Your task to perform on an android device: Go to eBay Image 0: 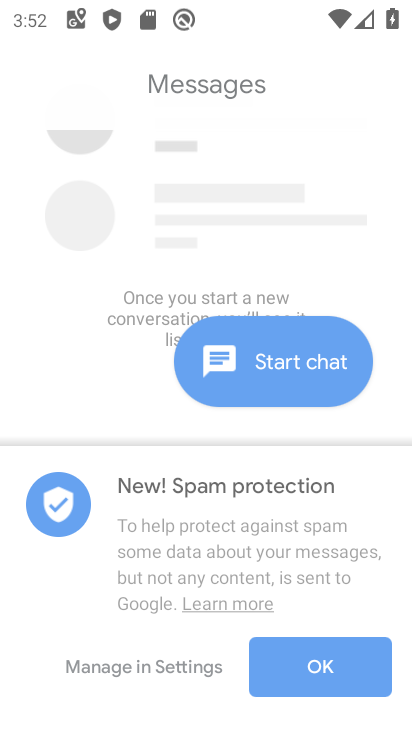
Step 0: click (360, 90)
Your task to perform on an android device: Go to eBay Image 1: 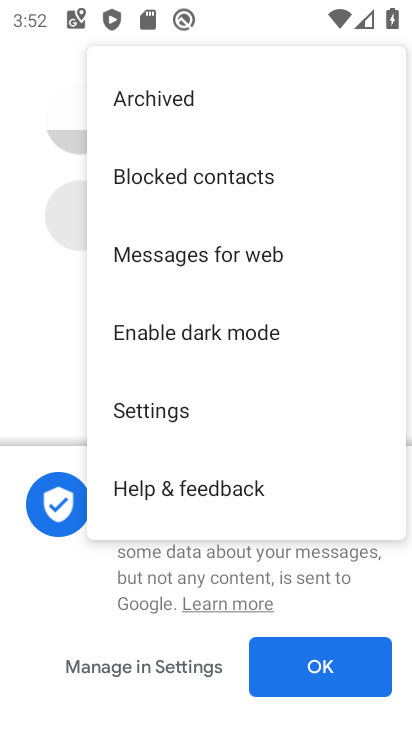
Step 1: click (147, 405)
Your task to perform on an android device: Go to eBay Image 2: 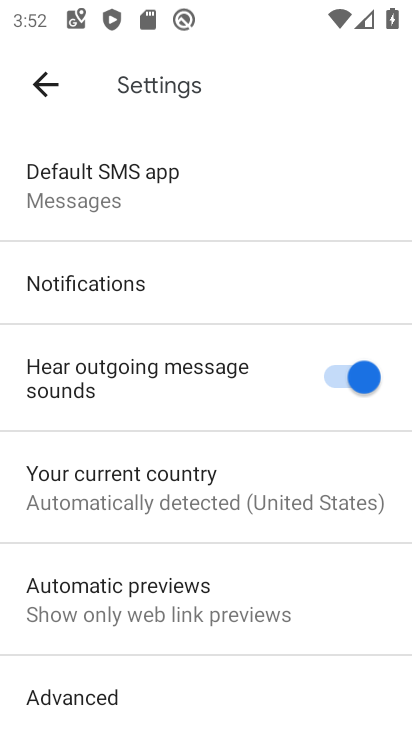
Step 2: drag from (261, 635) to (235, 218)
Your task to perform on an android device: Go to eBay Image 3: 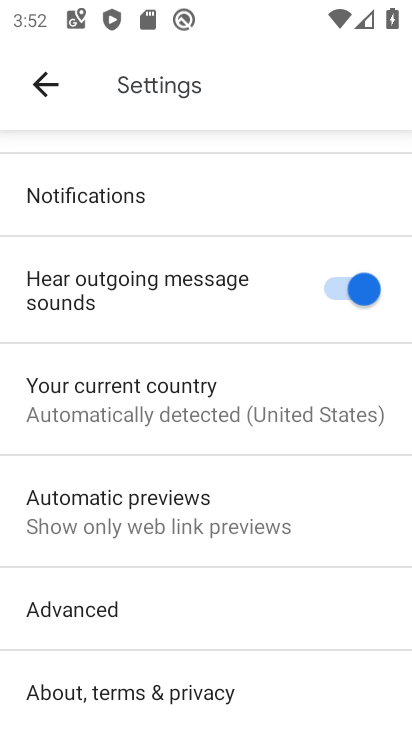
Step 3: press home button
Your task to perform on an android device: Go to eBay Image 4: 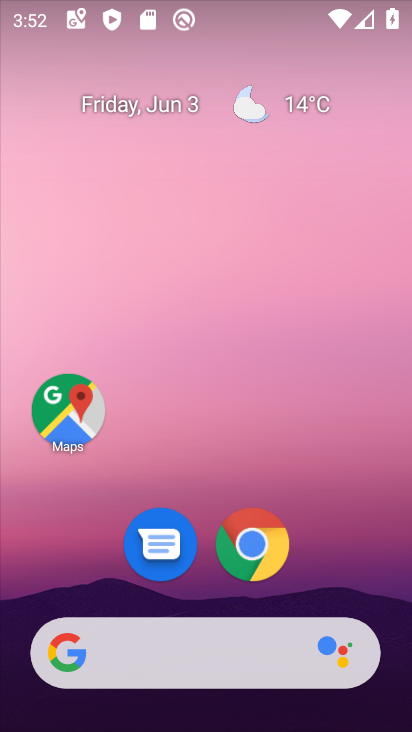
Step 4: click (249, 548)
Your task to perform on an android device: Go to eBay Image 5: 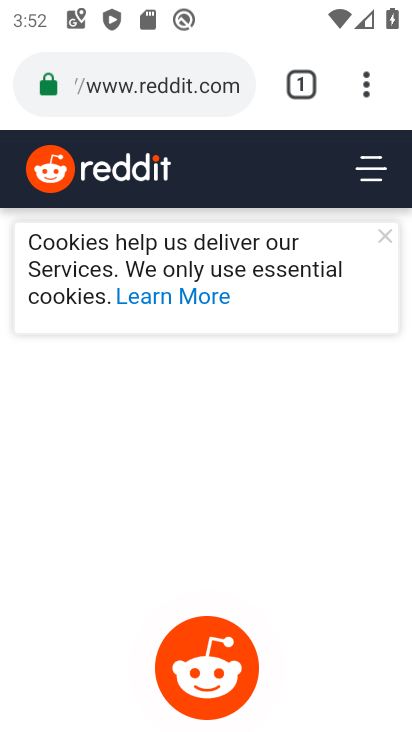
Step 5: click (207, 74)
Your task to perform on an android device: Go to eBay Image 6: 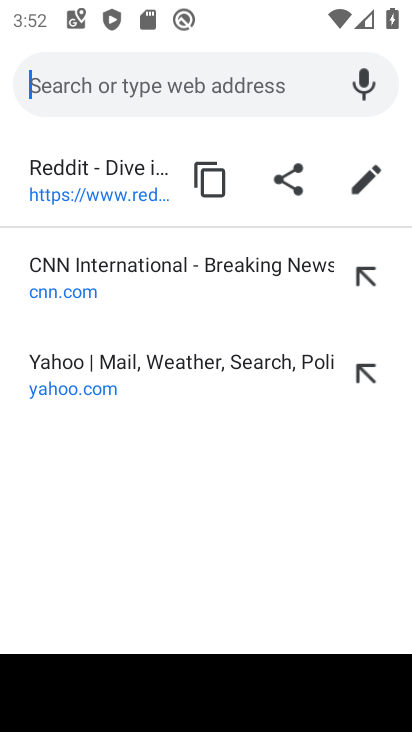
Step 6: type "ebay"
Your task to perform on an android device: Go to eBay Image 7: 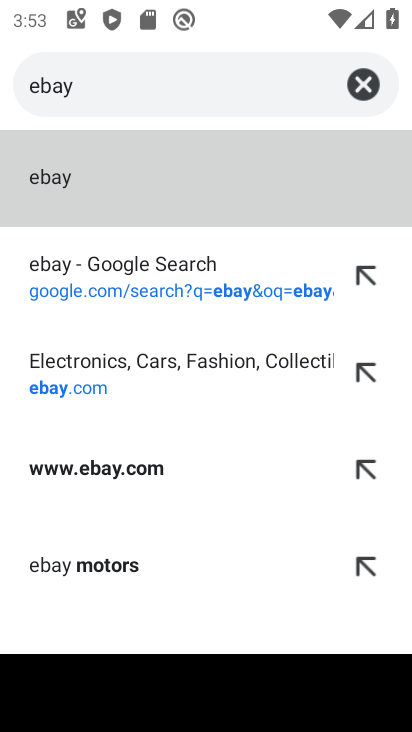
Step 7: click (49, 189)
Your task to perform on an android device: Go to eBay Image 8: 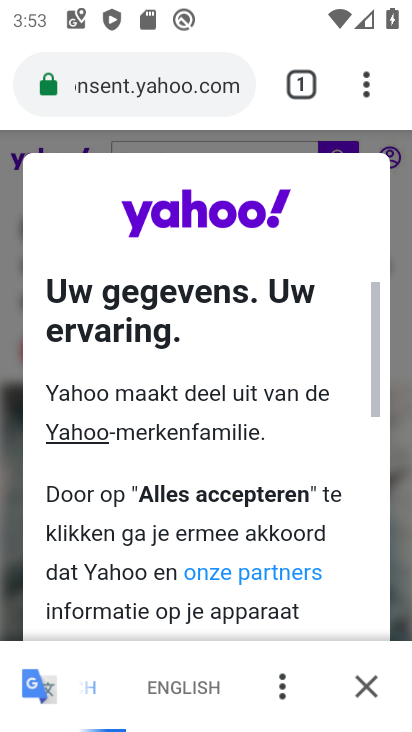
Step 8: drag from (323, 501) to (228, 61)
Your task to perform on an android device: Go to eBay Image 9: 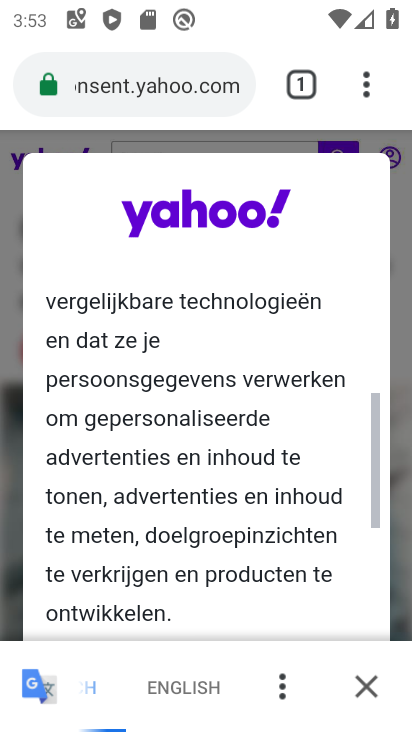
Step 9: drag from (268, 576) to (210, 125)
Your task to perform on an android device: Go to eBay Image 10: 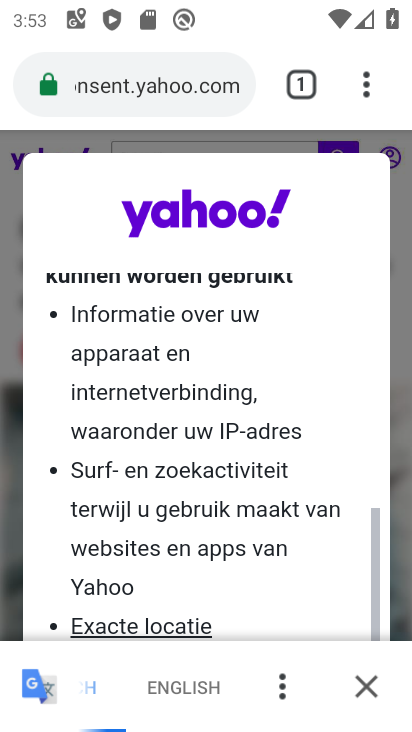
Step 10: drag from (275, 571) to (210, 72)
Your task to perform on an android device: Go to eBay Image 11: 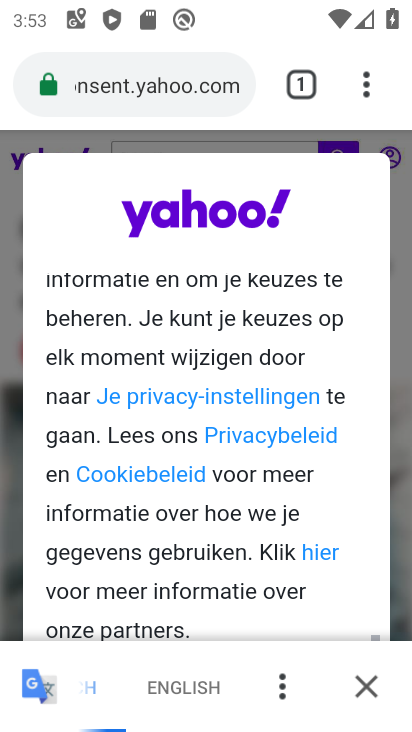
Step 11: drag from (218, 572) to (205, 27)
Your task to perform on an android device: Go to eBay Image 12: 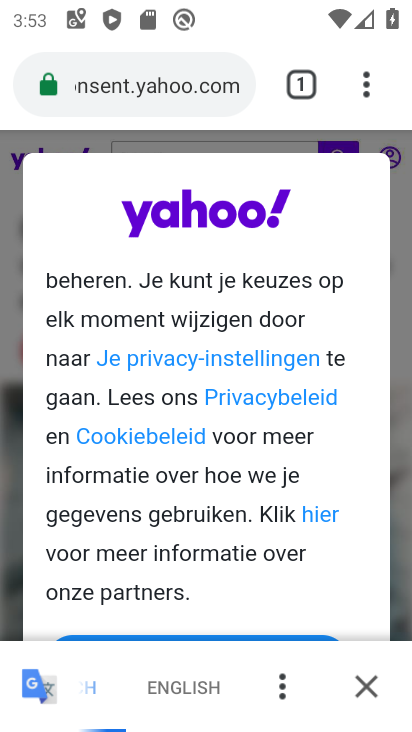
Step 12: drag from (204, 597) to (182, 99)
Your task to perform on an android device: Go to eBay Image 13: 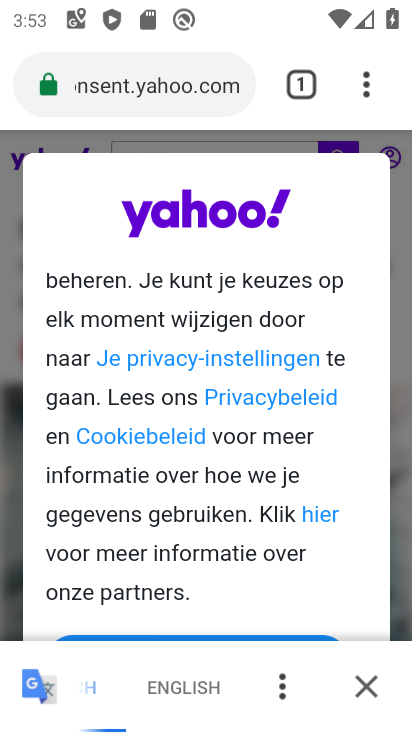
Step 13: drag from (195, 628) to (201, 238)
Your task to perform on an android device: Go to eBay Image 14: 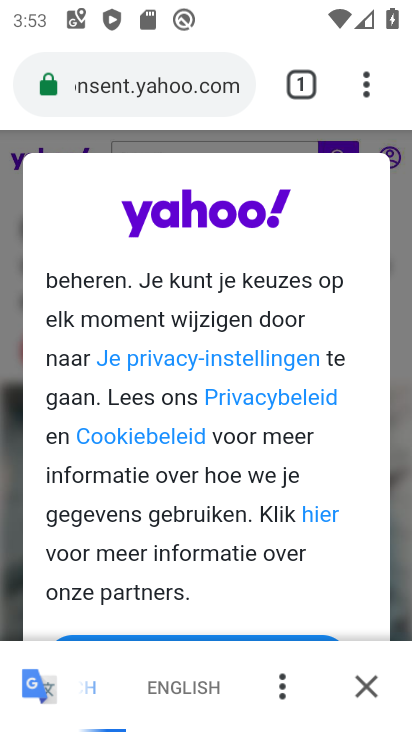
Step 14: click (361, 687)
Your task to perform on an android device: Go to eBay Image 15: 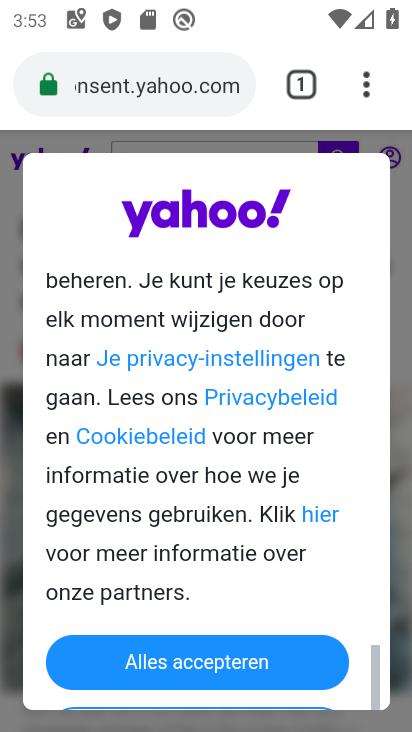
Step 15: click (198, 657)
Your task to perform on an android device: Go to eBay Image 16: 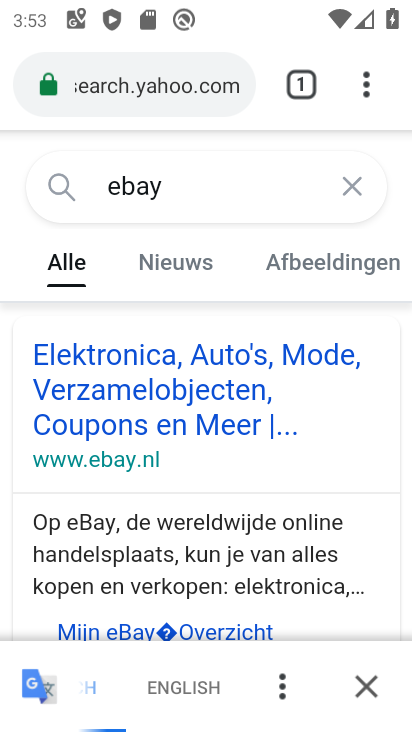
Step 16: click (130, 359)
Your task to perform on an android device: Go to eBay Image 17: 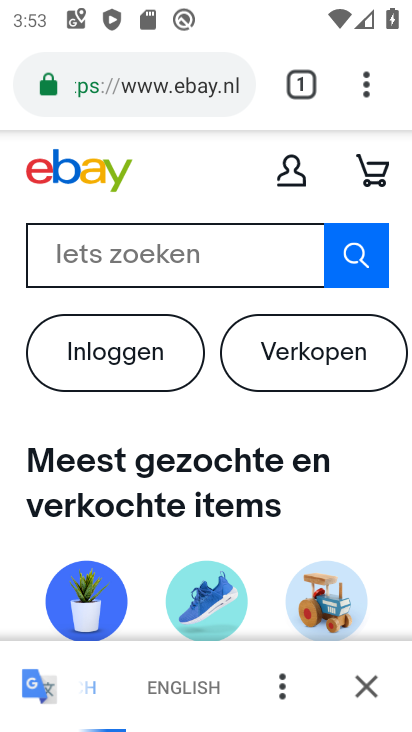
Step 17: task complete